Your task to perform on an android device: snooze an email in the gmail app Image 0: 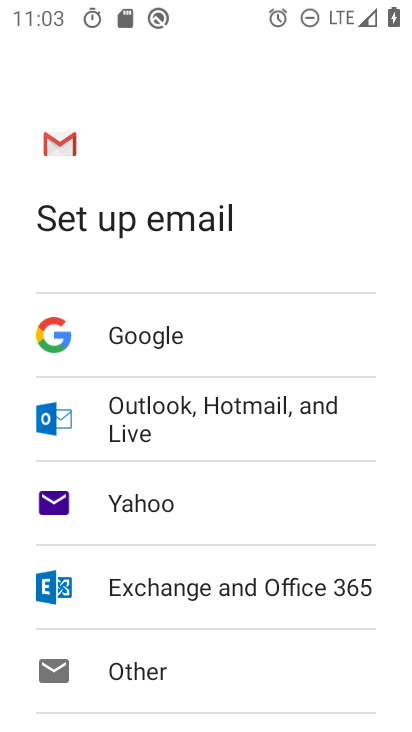
Step 0: press home button
Your task to perform on an android device: snooze an email in the gmail app Image 1: 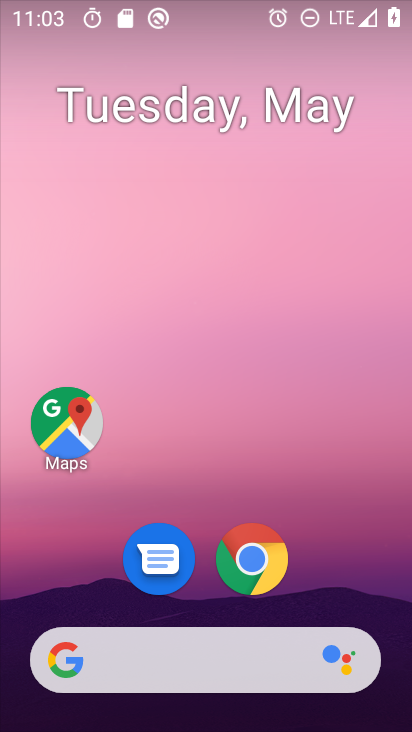
Step 1: drag from (390, 646) to (300, 2)
Your task to perform on an android device: snooze an email in the gmail app Image 2: 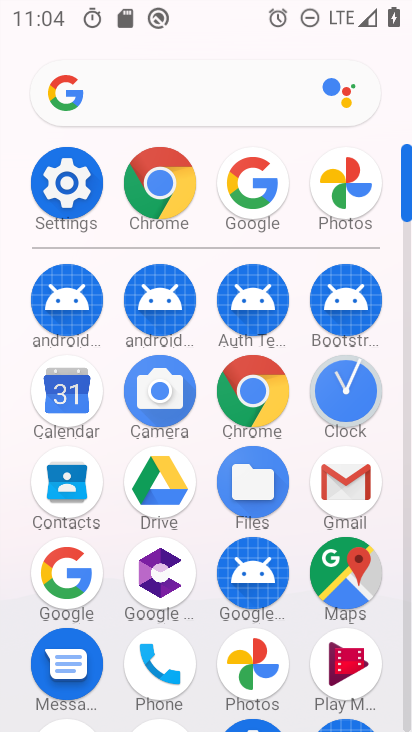
Step 2: click (349, 484)
Your task to perform on an android device: snooze an email in the gmail app Image 3: 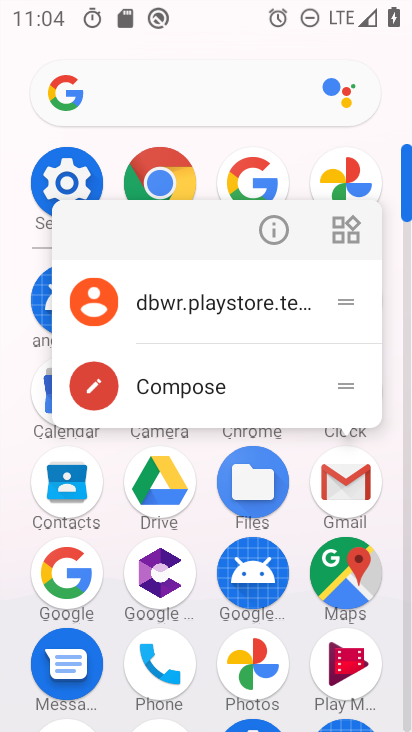
Step 3: click (349, 484)
Your task to perform on an android device: snooze an email in the gmail app Image 4: 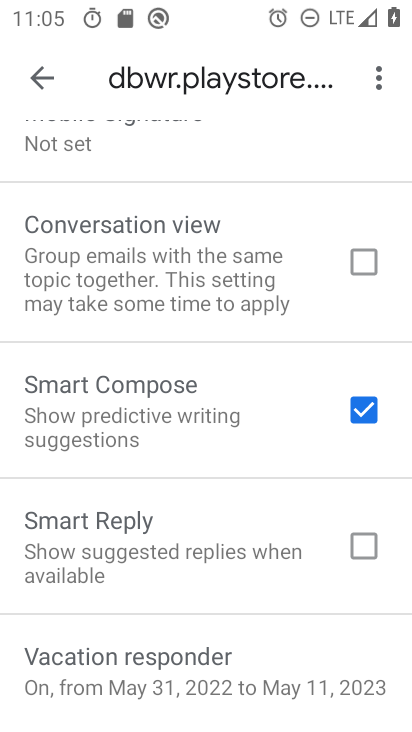
Step 4: press back button
Your task to perform on an android device: snooze an email in the gmail app Image 5: 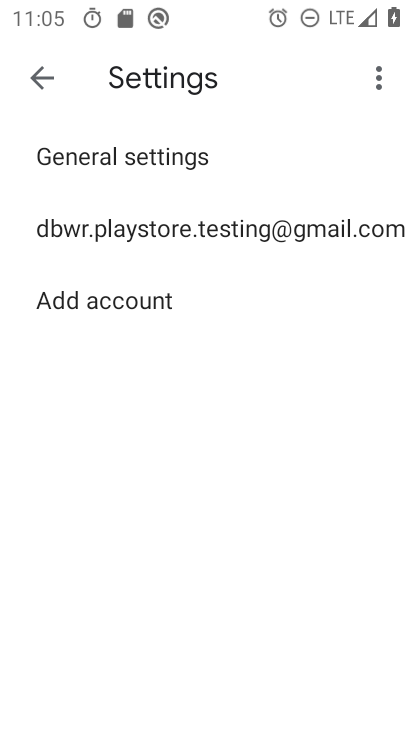
Step 5: press back button
Your task to perform on an android device: snooze an email in the gmail app Image 6: 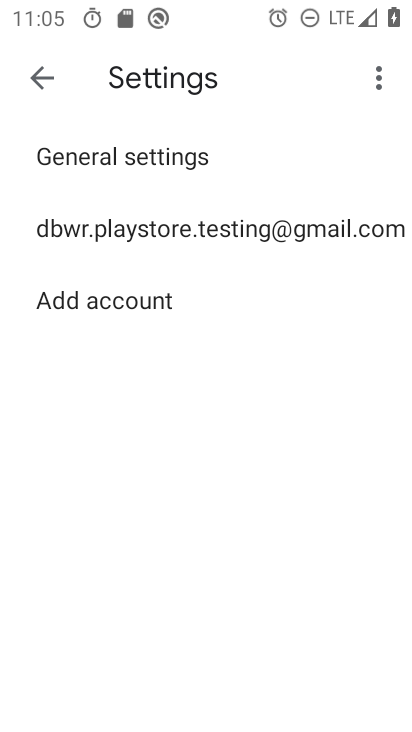
Step 6: press back button
Your task to perform on an android device: snooze an email in the gmail app Image 7: 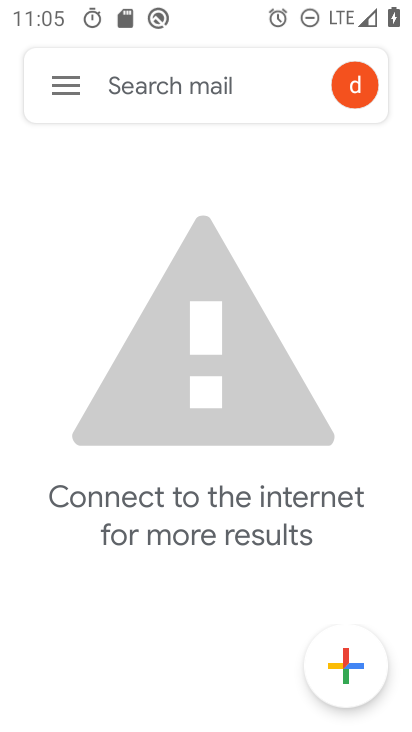
Step 7: click (48, 73)
Your task to perform on an android device: snooze an email in the gmail app Image 8: 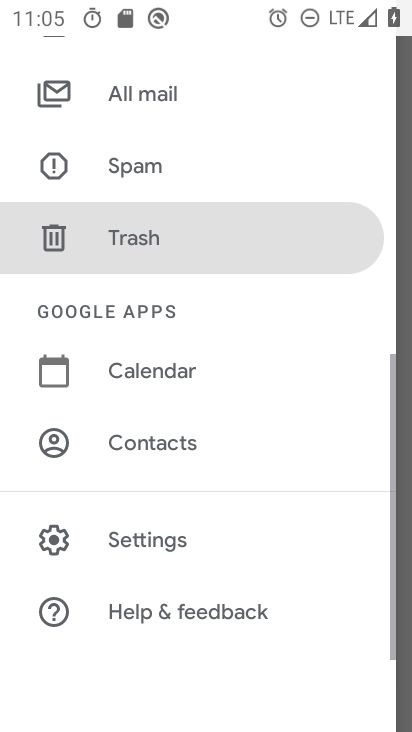
Step 8: drag from (100, 101) to (87, 625)
Your task to perform on an android device: snooze an email in the gmail app Image 9: 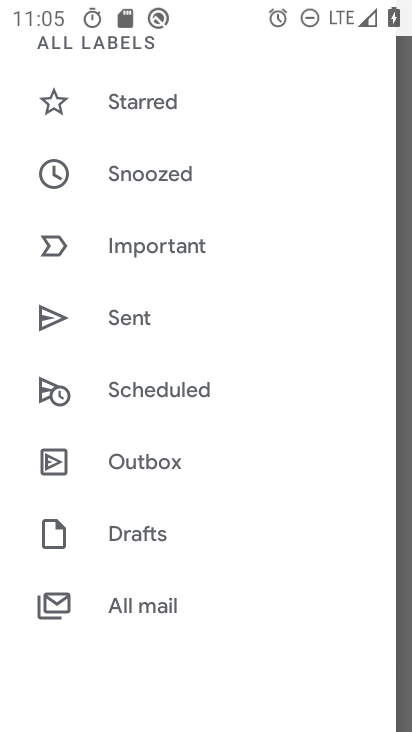
Step 9: drag from (147, 114) to (148, 554)
Your task to perform on an android device: snooze an email in the gmail app Image 10: 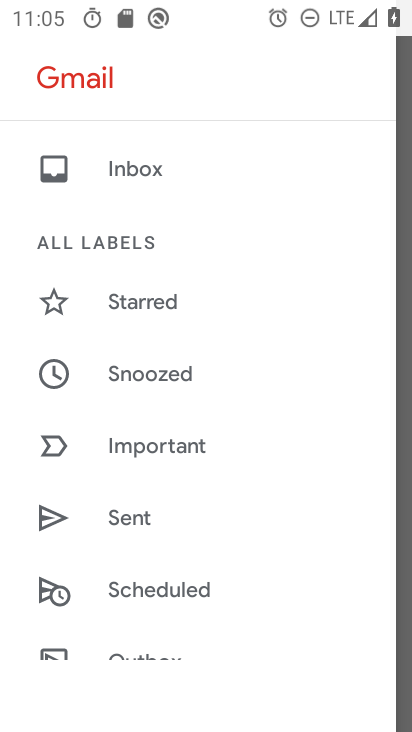
Step 10: click (165, 157)
Your task to perform on an android device: snooze an email in the gmail app Image 11: 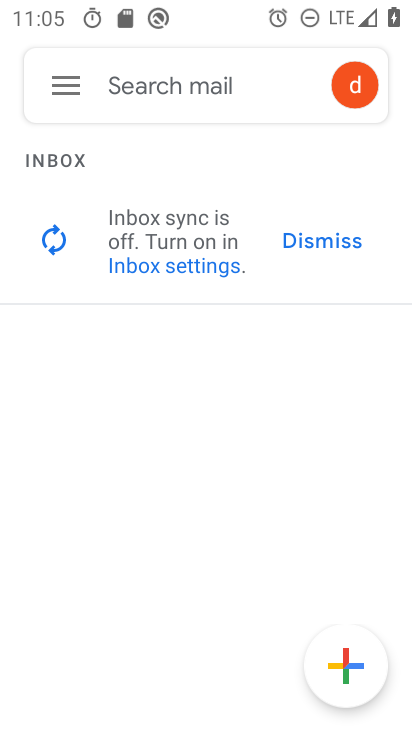
Step 11: task complete